Your task to perform on an android device: Turn on the flashlight Image 0: 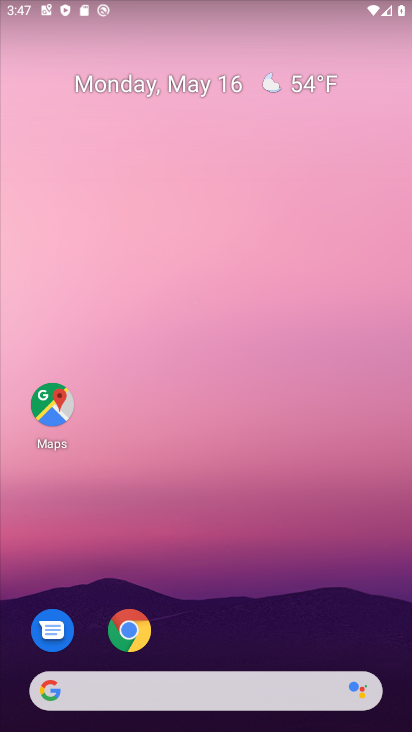
Step 0: drag from (332, 6) to (299, 704)
Your task to perform on an android device: Turn on the flashlight Image 1: 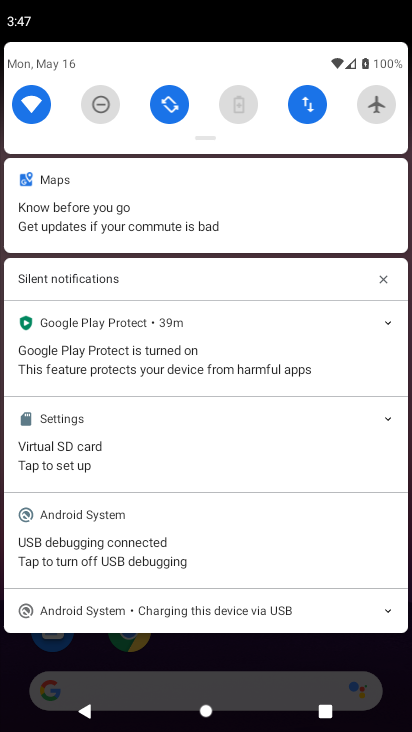
Step 1: drag from (213, 127) to (247, 665)
Your task to perform on an android device: Turn on the flashlight Image 2: 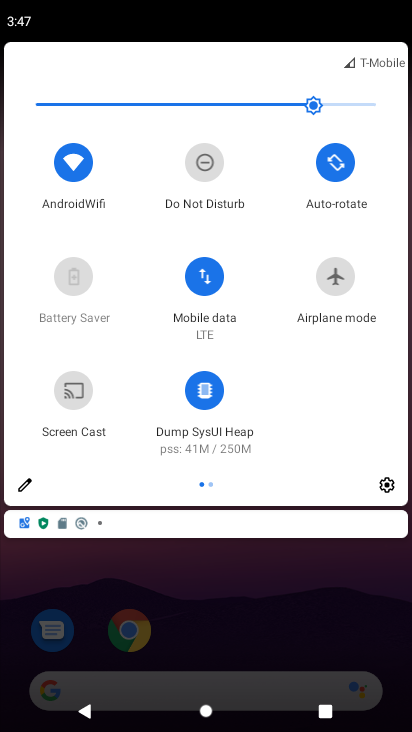
Step 2: click (24, 484)
Your task to perform on an android device: Turn on the flashlight Image 3: 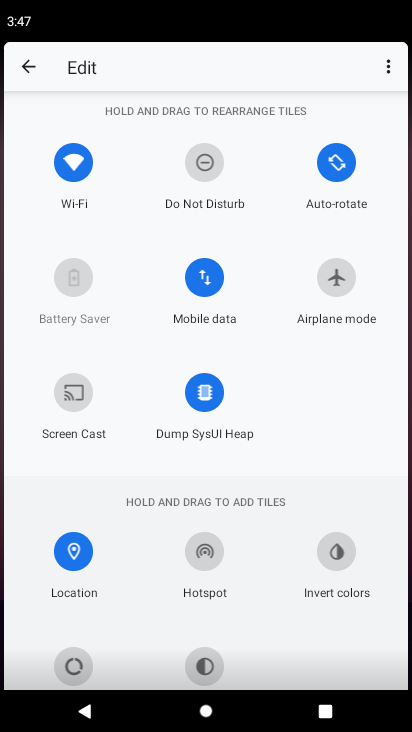
Step 3: task complete